Your task to perform on an android device: Open Chrome and go to settings Image 0: 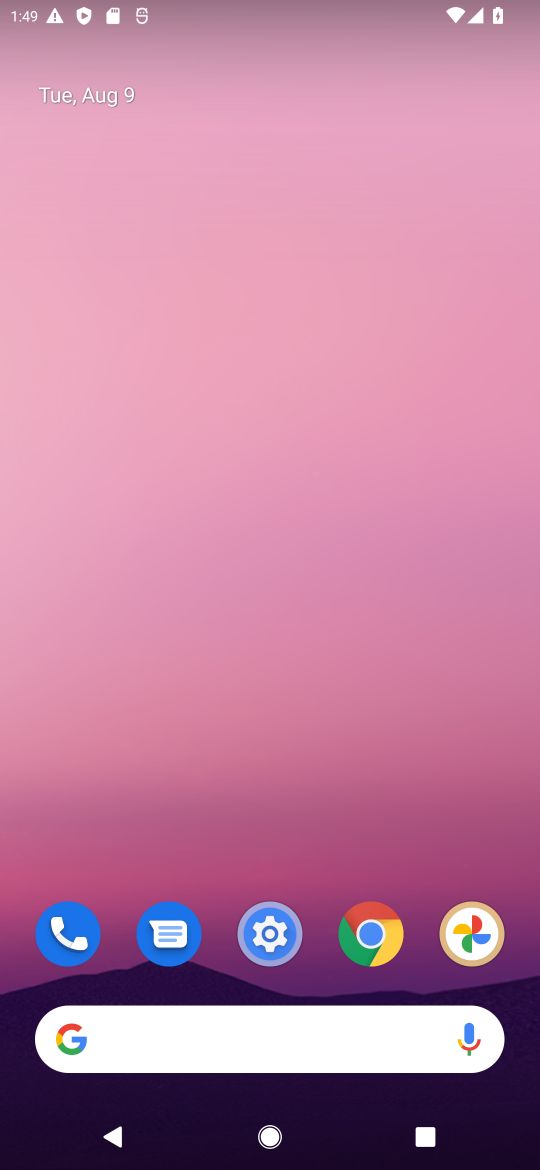
Step 0: click (378, 923)
Your task to perform on an android device: Open Chrome and go to settings Image 1: 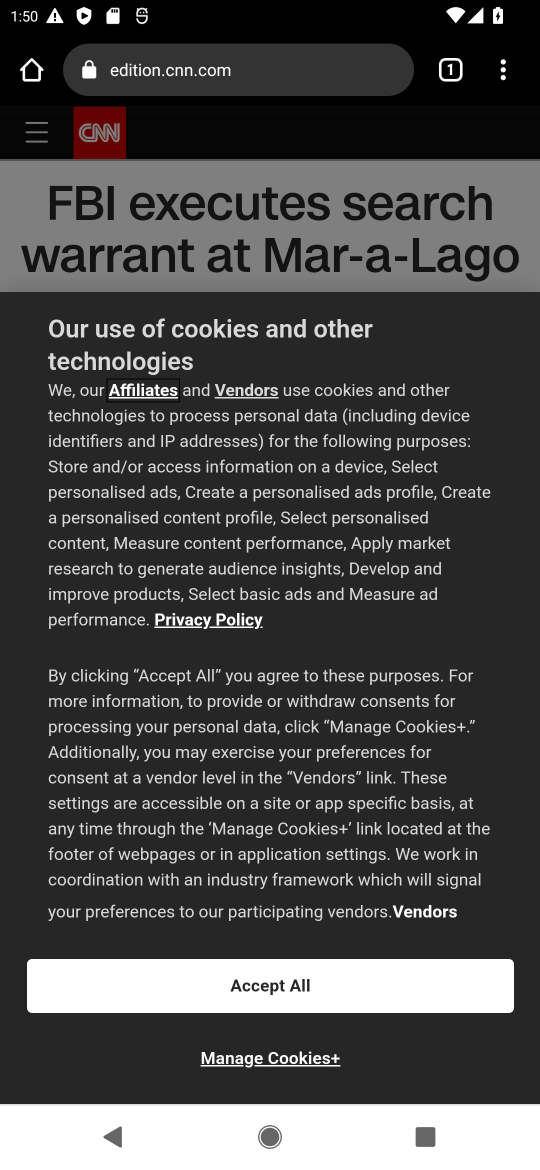
Step 1: click (500, 99)
Your task to perform on an android device: Open Chrome and go to settings Image 2: 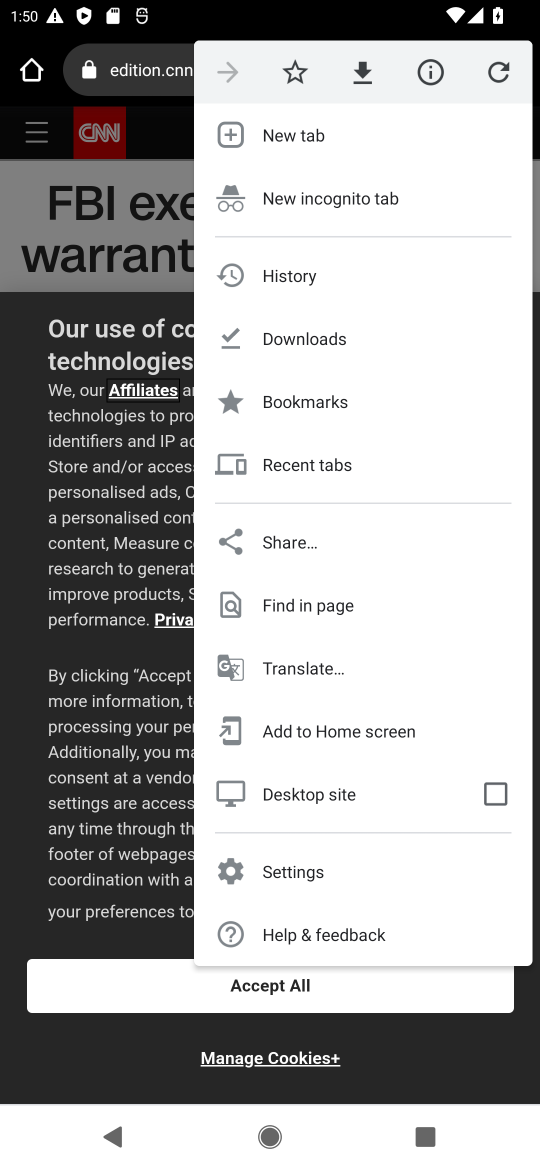
Step 2: click (323, 875)
Your task to perform on an android device: Open Chrome and go to settings Image 3: 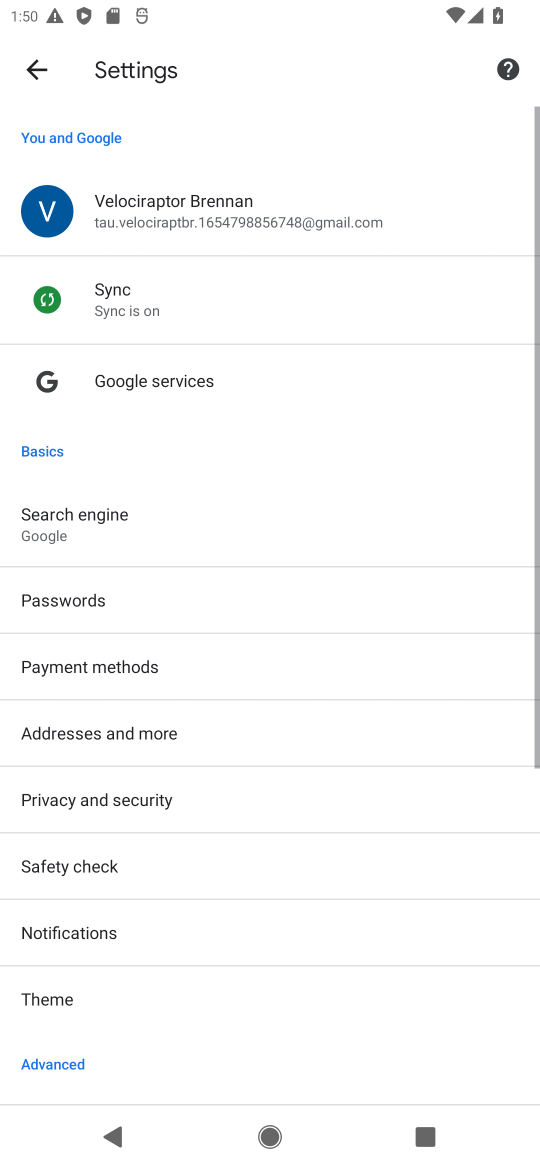
Step 3: task complete